Your task to perform on an android device: add a contact Image 0: 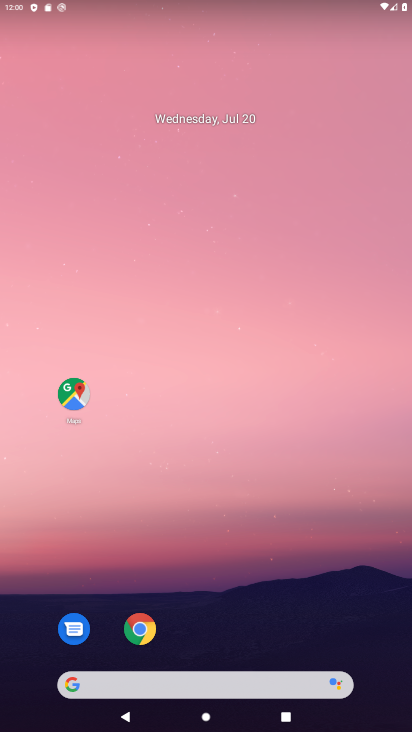
Step 0: drag from (213, 600) to (82, 20)
Your task to perform on an android device: add a contact Image 1: 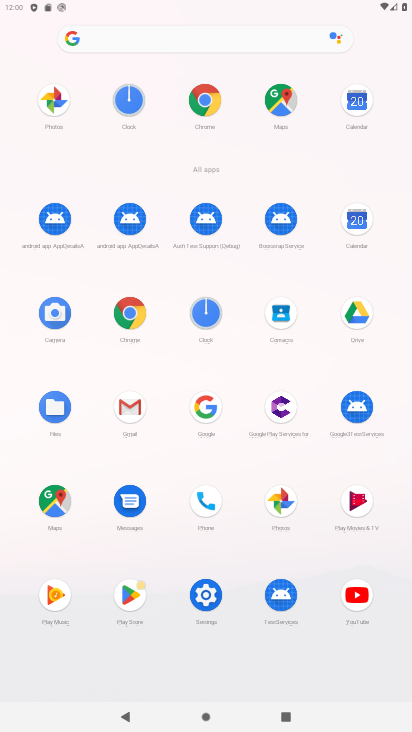
Step 1: click (273, 316)
Your task to perform on an android device: add a contact Image 2: 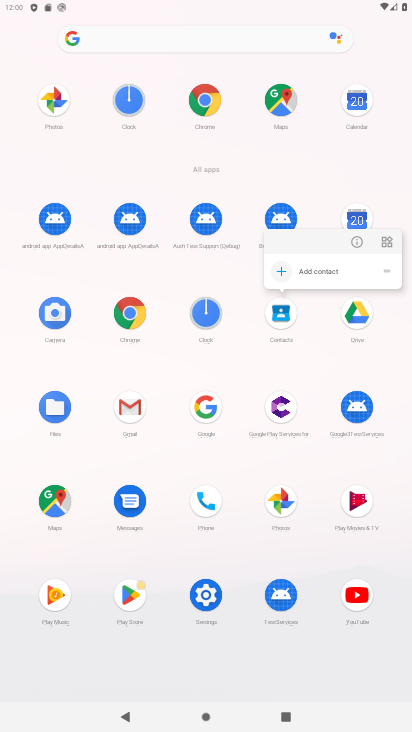
Step 2: click (354, 238)
Your task to perform on an android device: add a contact Image 3: 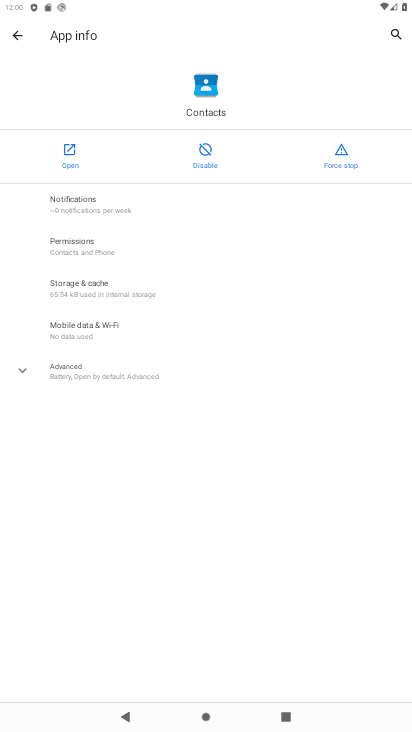
Step 3: click (54, 160)
Your task to perform on an android device: add a contact Image 4: 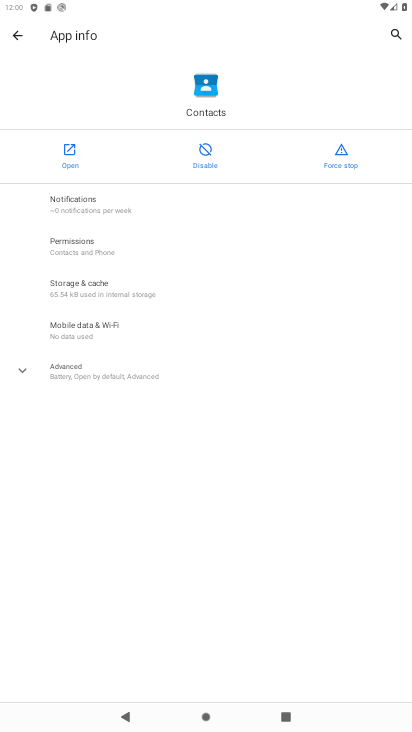
Step 4: click (54, 158)
Your task to perform on an android device: add a contact Image 5: 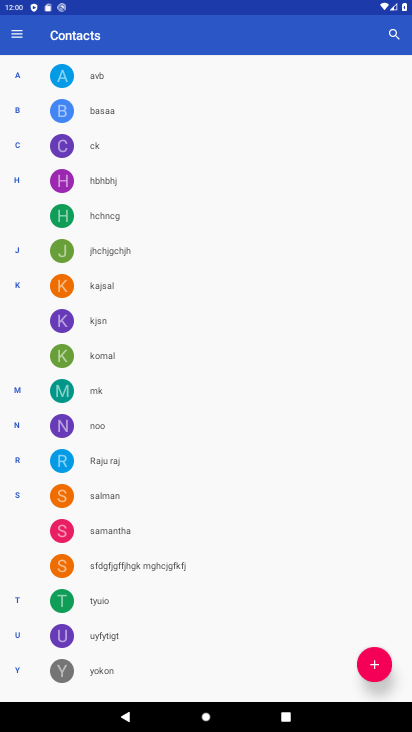
Step 5: click (373, 661)
Your task to perform on an android device: add a contact Image 6: 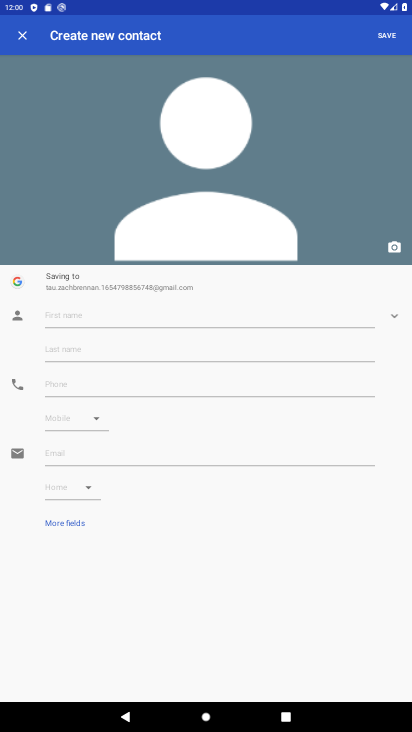
Step 6: click (51, 306)
Your task to perform on an android device: add a contact Image 7: 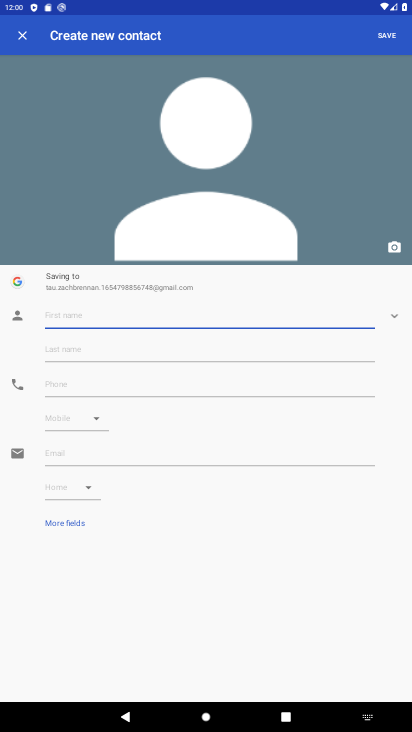
Step 7: type "mhjk"
Your task to perform on an android device: add a contact Image 8: 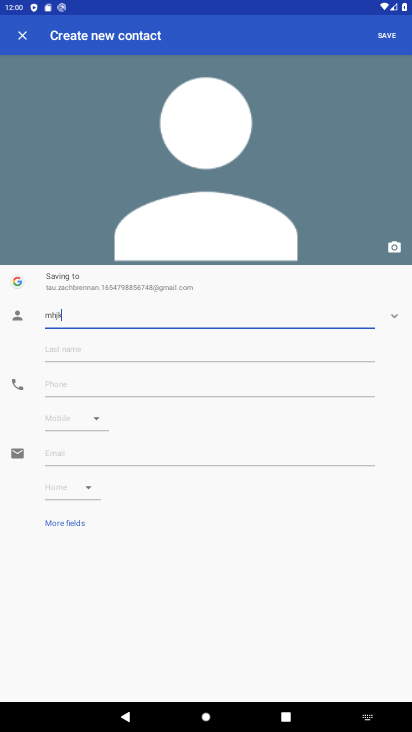
Step 8: click (66, 382)
Your task to perform on an android device: add a contact Image 9: 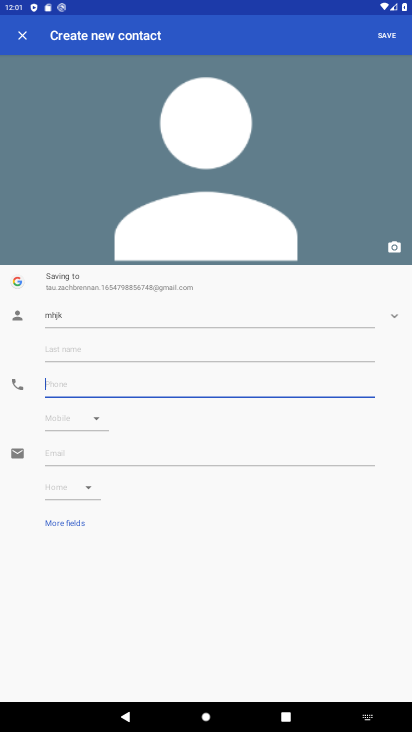
Step 9: type "5766898909"
Your task to perform on an android device: add a contact Image 10: 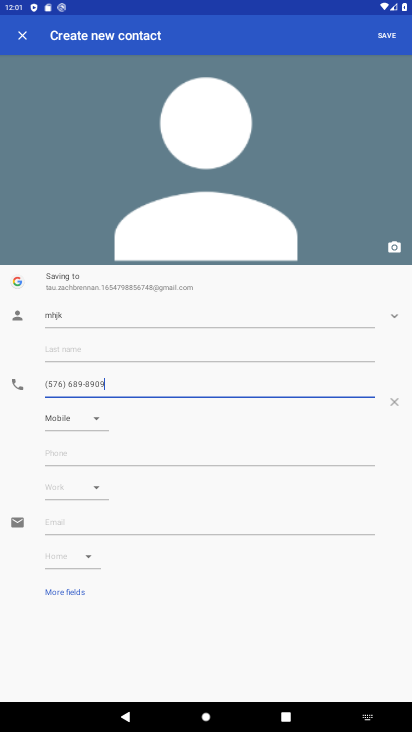
Step 10: click (384, 31)
Your task to perform on an android device: add a contact Image 11: 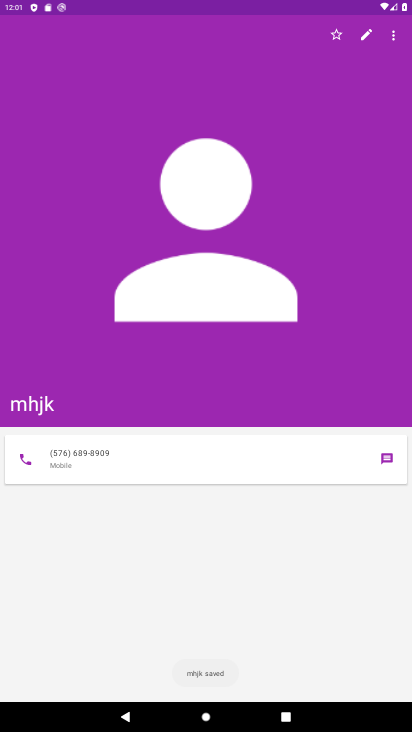
Step 11: task complete